Your task to perform on an android device: open a bookmark in the chrome app Image 0: 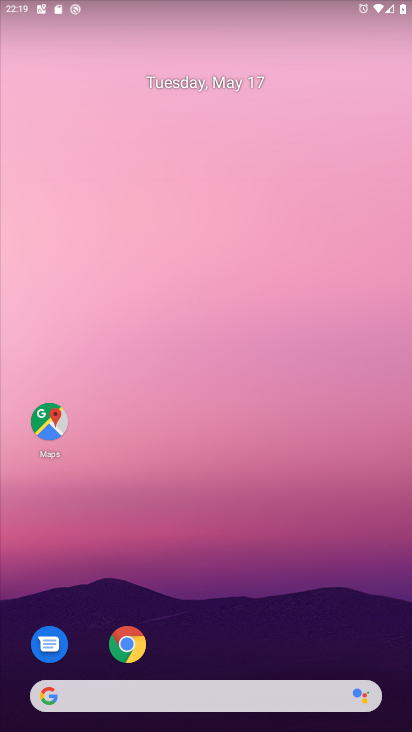
Step 0: click (126, 644)
Your task to perform on an android device: open a bookmark in the chrome app Image 1: 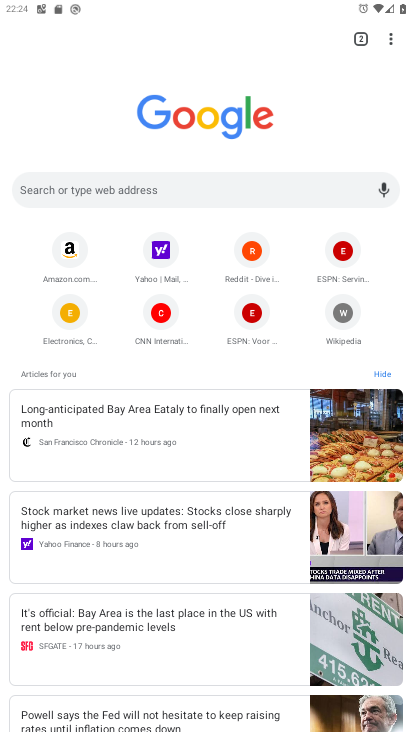
Step 1: click (383, 37)
Your task to perform on an android device: open a bookmark in the chrome app Image 2: 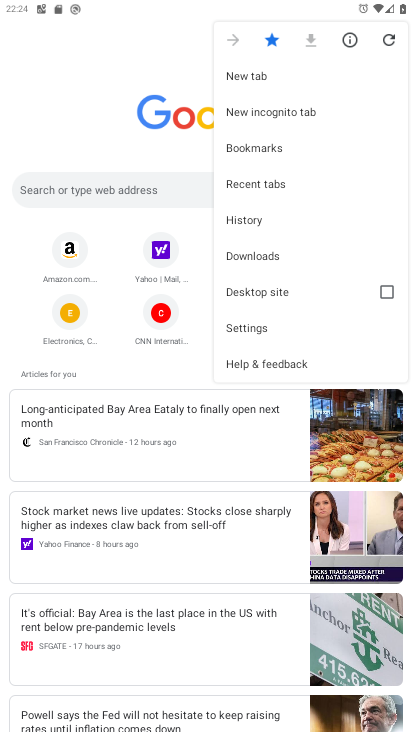
Step 2: click (269, 149)
Your task to perform on an android device: open a bookmark in the chrome app Image 3: 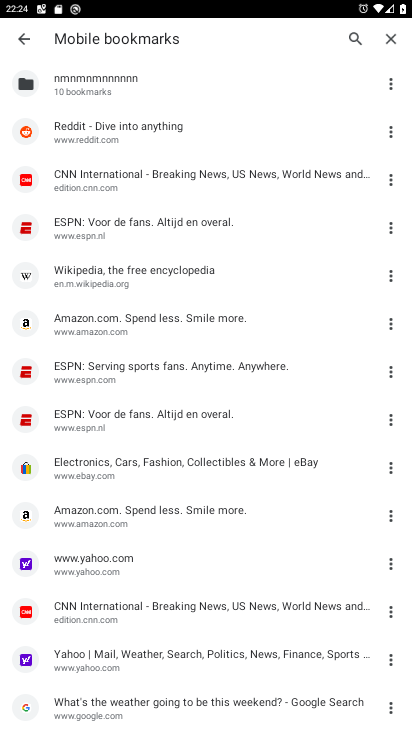
Step 3: click (62, 222)
Your task to perform on an android device: open a bookmark in the chrome app Image 4: 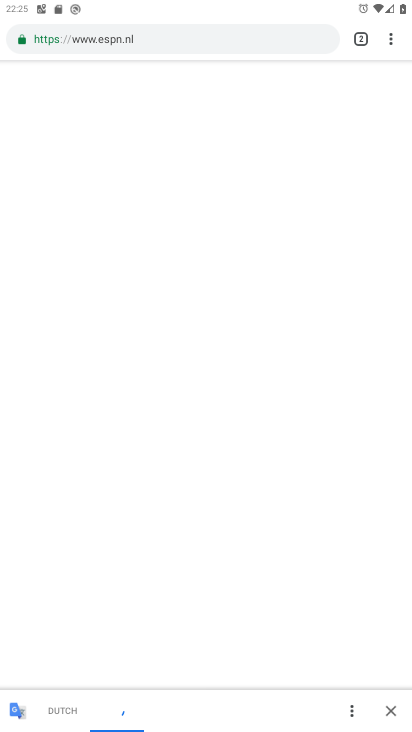
Step 4: task complete